Your task to perform on an android device: check battery use Image 0: 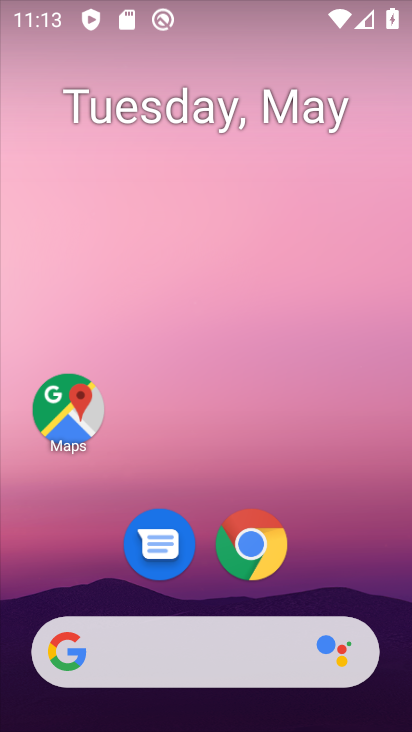
Step 0: drag from (336, 448) to (309, 298)
Your task to perform on an android device: check battery use Image 1: 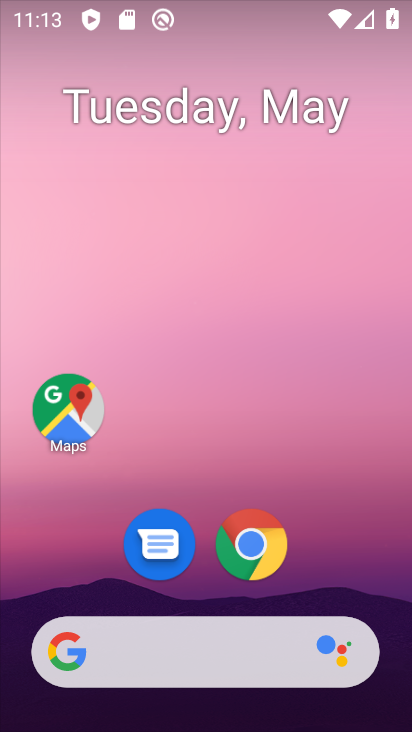
Step 1: drag from (395, 638) to (411, 194)
Your task to perform on an android device: check battery use Image 2: 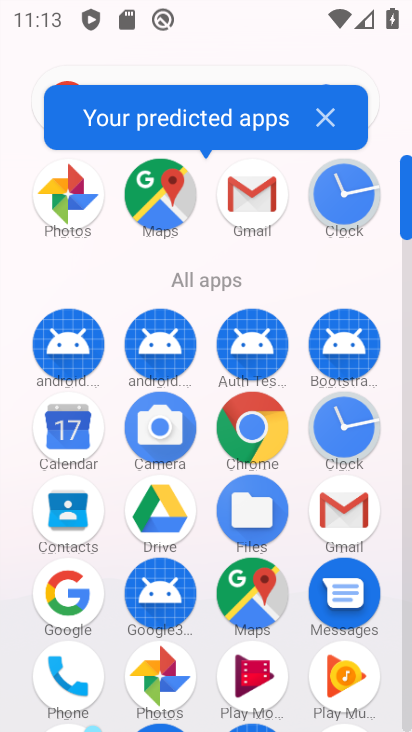
Step 2: drag from (408, 162) to (381, 96)
Your task to perform on an android device: check battery use Image 3: 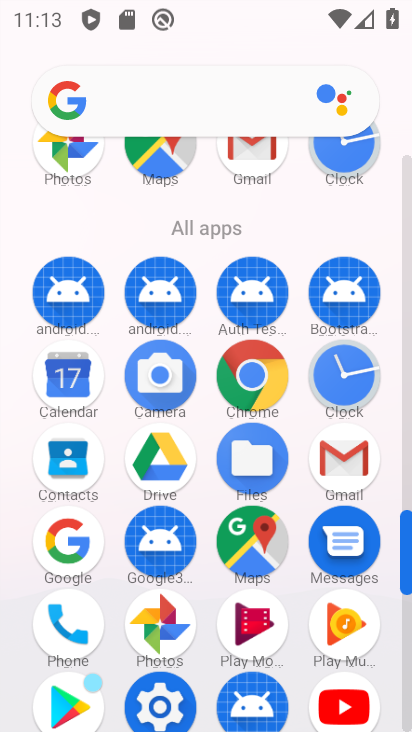
Step 3: click (143, 707)
Your task to perform on an android device: check battery use Image 4: 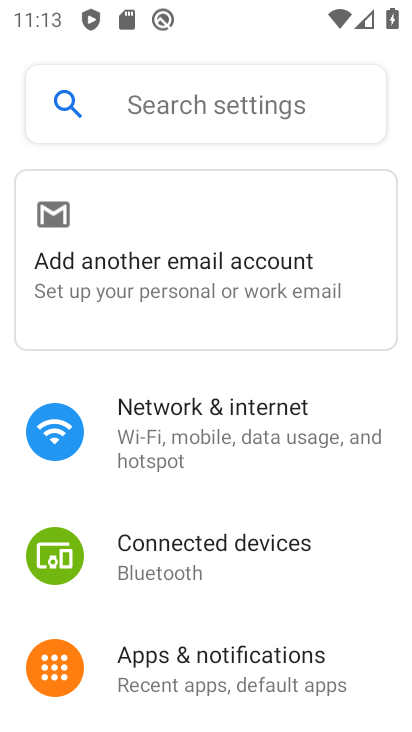
Step 4: drag from (353, 639) to (373, 409)
Your task to perform on an android device: check battery use Image 5: 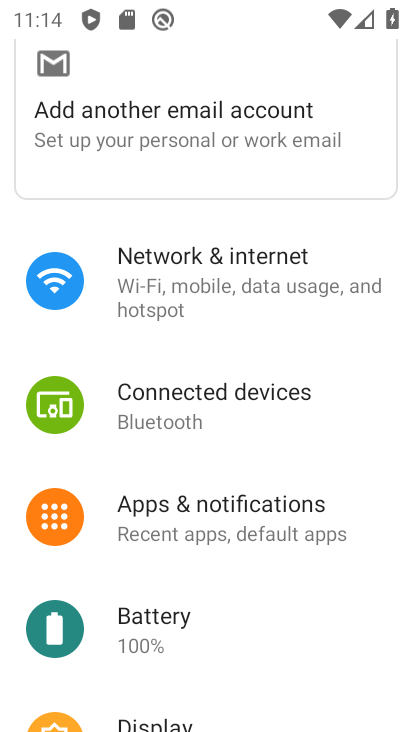
Step 5: drag from (339, 644) to (375, 409)
Your task to perform on an android device: check battery use Image 6: 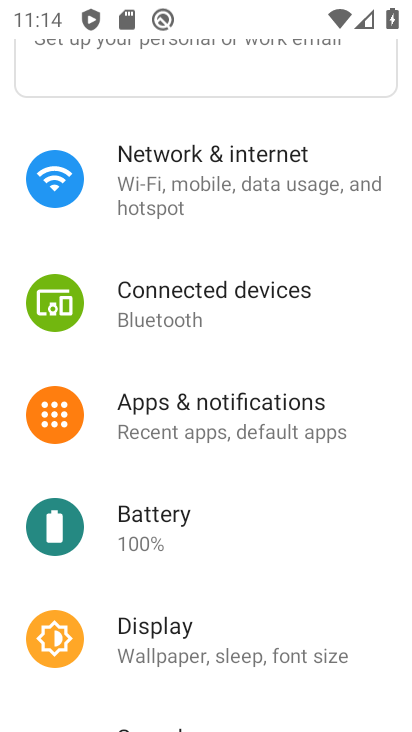
Step 6: click (131, 541)
Your task to perform on an android device: check battery use Image 7: 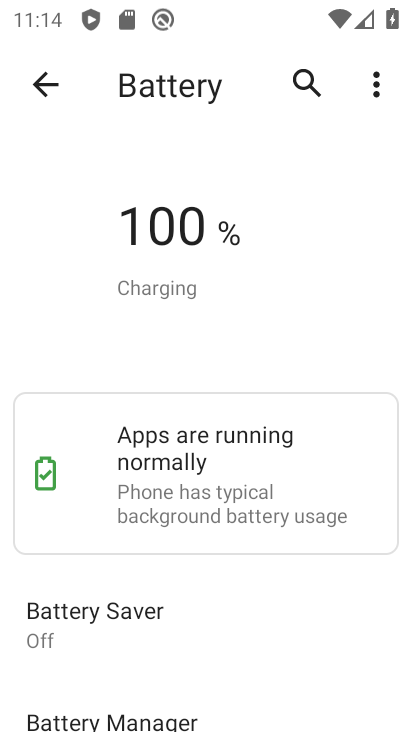
Step 7: task complete